Your task to perform on an android device: Go to display settings Image 0: 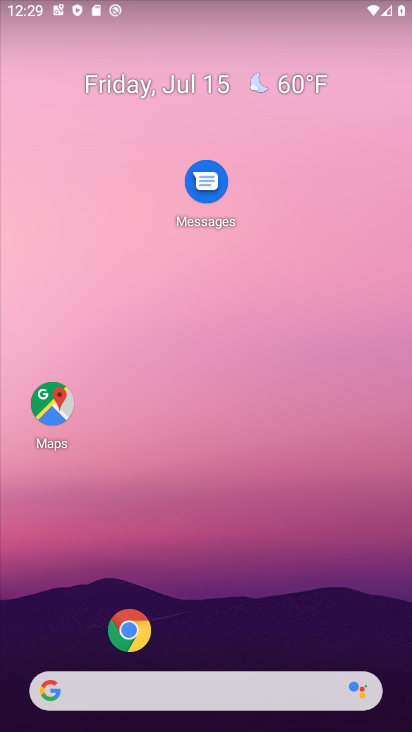
Step 0: drag from (24, 643) to (197, 346)
Your task to perform on an android device: Go to display settings Image 1: 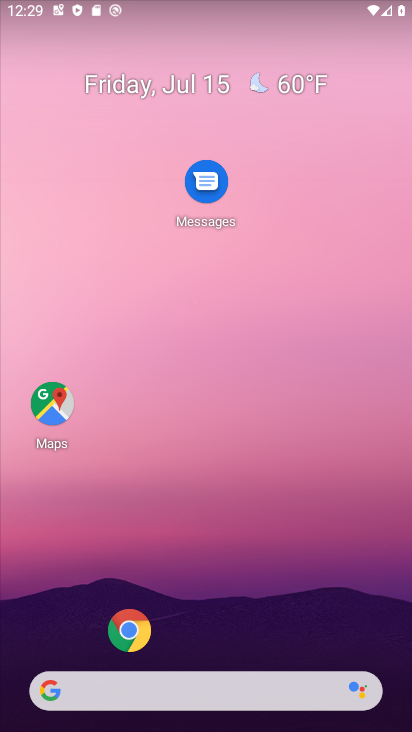
Step 1: drag from (38, 603) to (254, 231)
Your task to perform on an android device: Go to display settings Image 2: 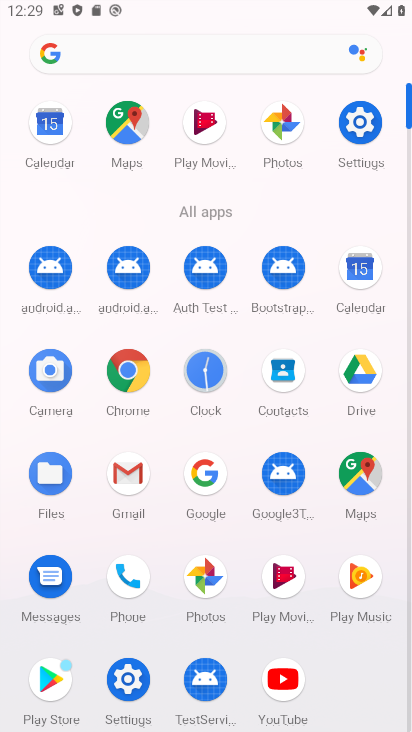
Step 2: click (101, 699)
Your task to perform on an android device: Go to display settings Image 3: 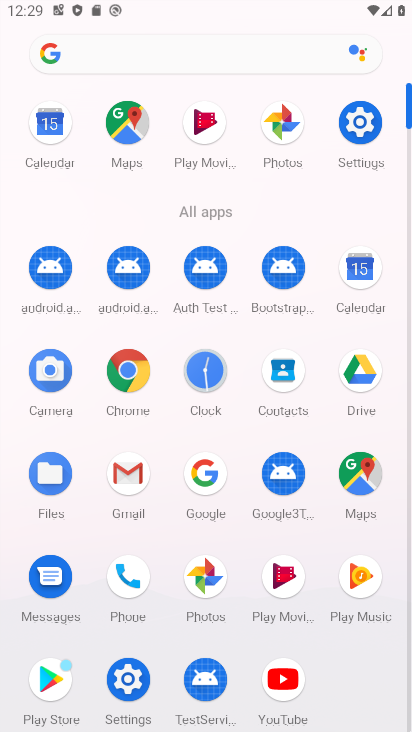
Step 3: click (116, 691)
Your task to perform on an android device: Go to display settings Image 4: 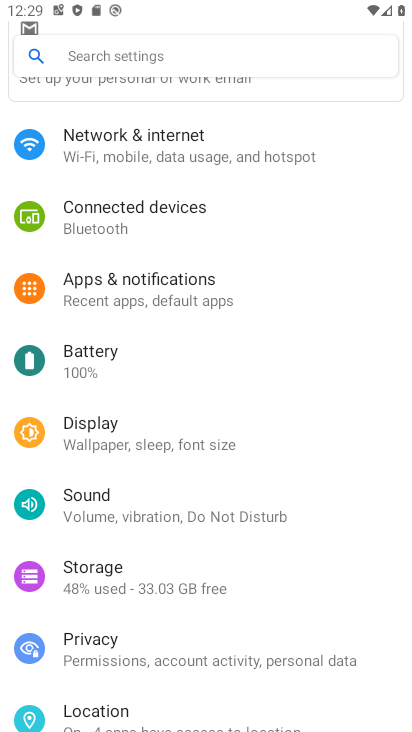
Step 4: click (133, 452)
Your task to perform on an android device: Go to display settings Image 5: 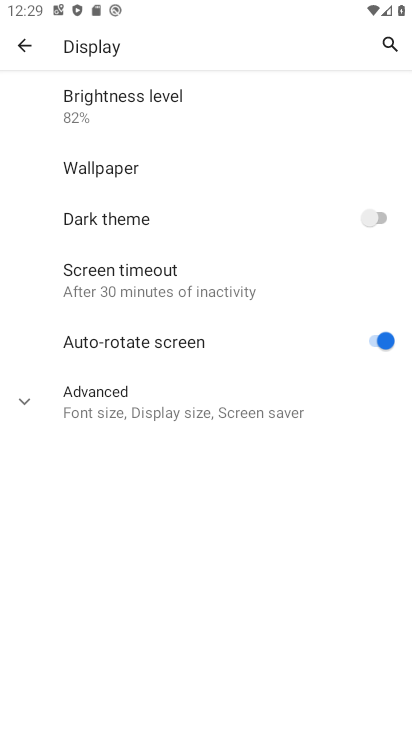
Step 5: task complete